Your task to perform on an android device: turn on javascript in the chrome app Image 0: 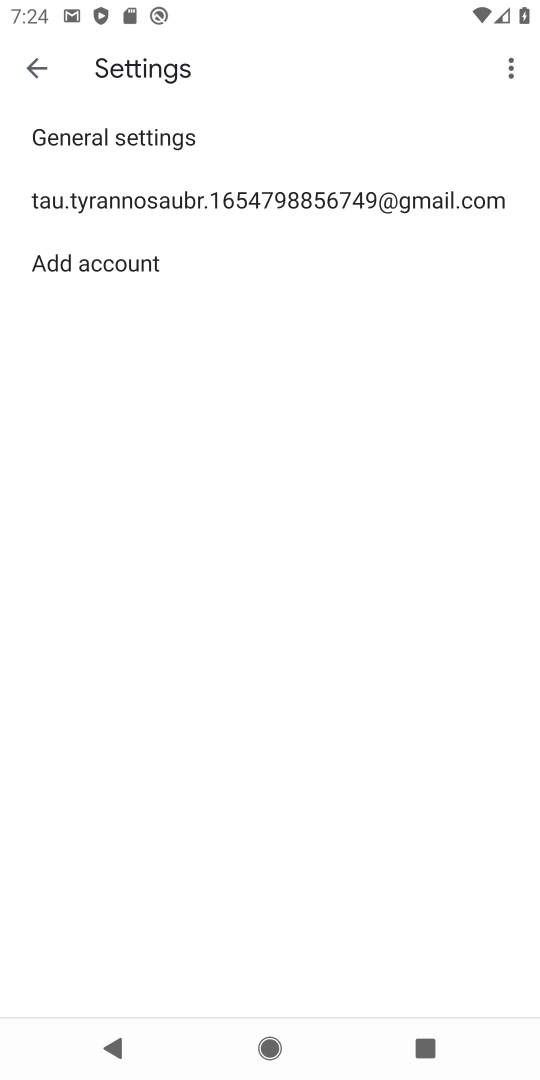
Step 0: press home button
Your task to perform on an android device: turn on javascript in the chrome app Image 1: 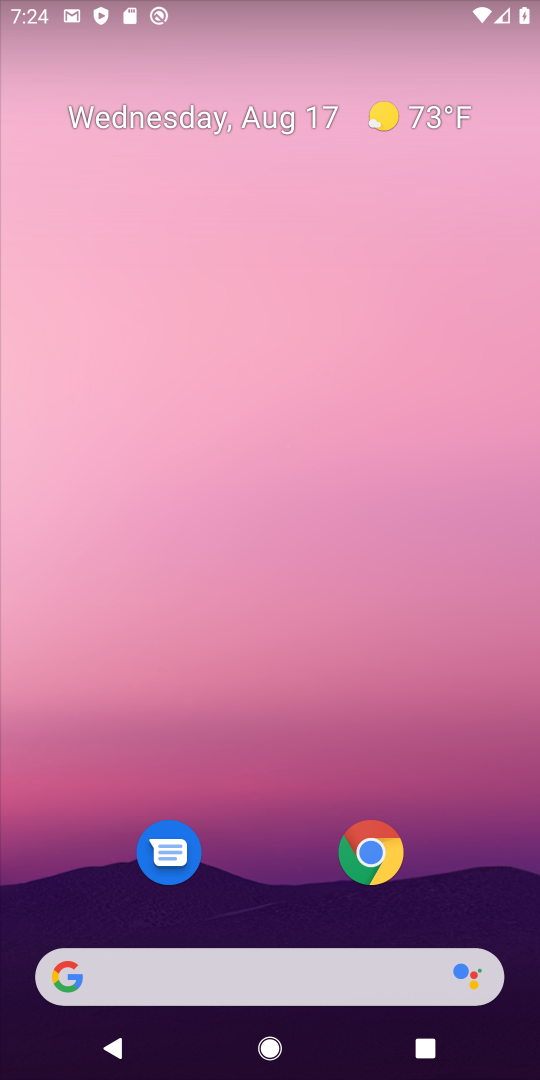
Step 1: press home button
Your task to perform on an android device: turn on javascript in the chrome app Image 2: 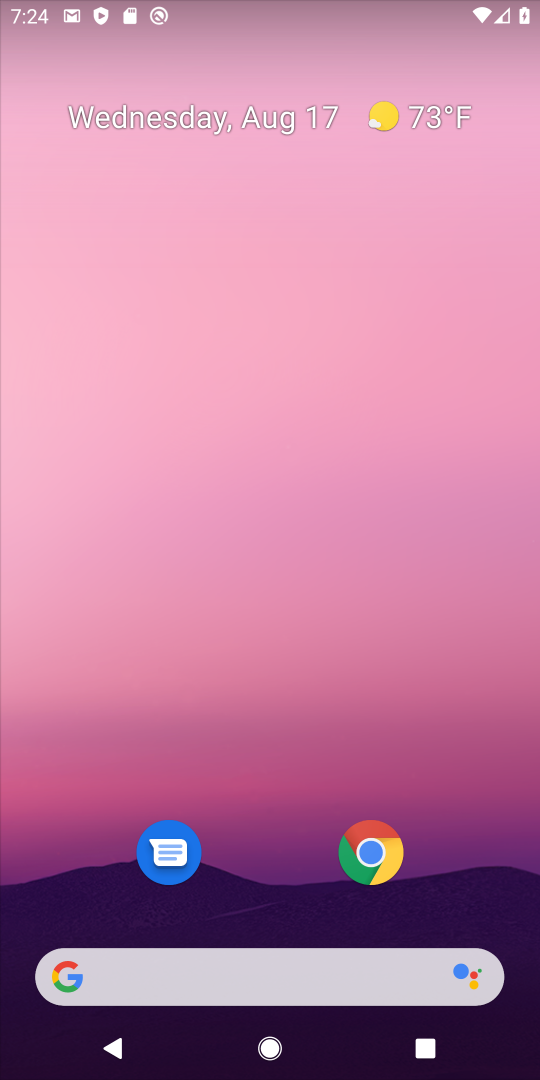
Step 2: click (368, 850)
Your task to perform on an android device: turn on javascript in the chrome app Image 3: 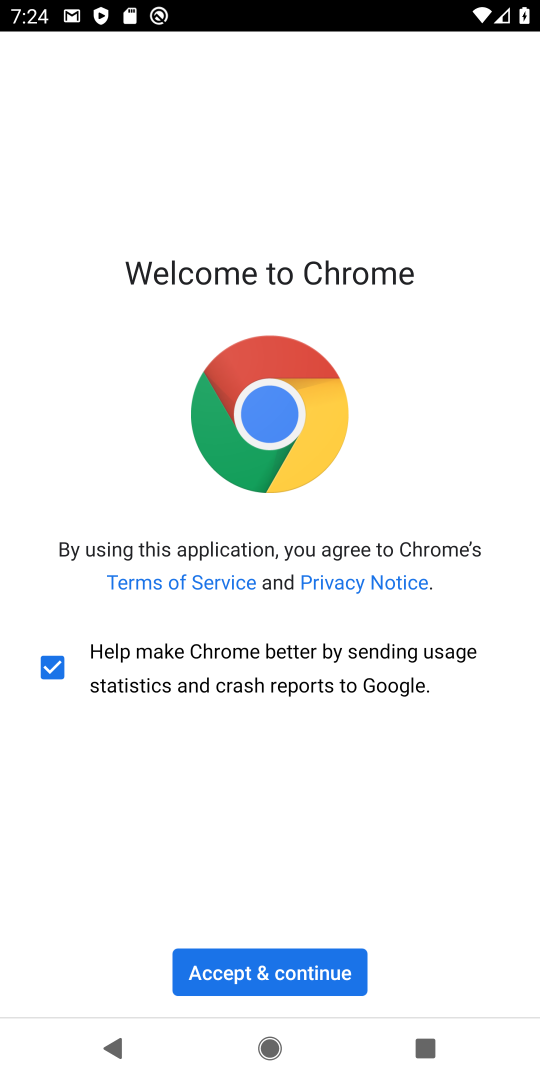
Step 3: click (277, 965)
Your task to perform on an android device: turn on javascript in the chrome app Image 4: 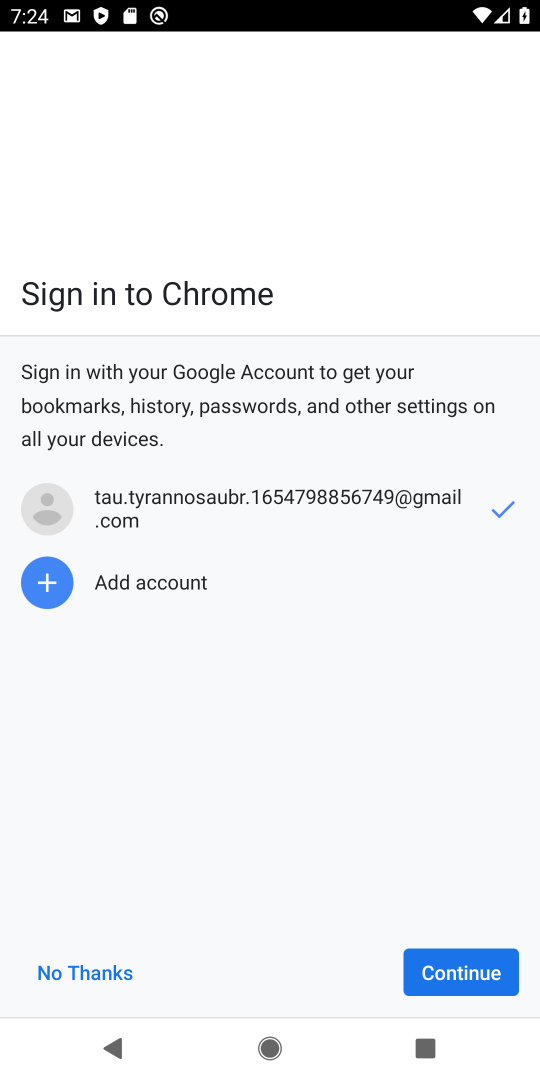
Step 4: click (432, 971)
Your task to perform on an android device: turn on javascript in the chrome app Image 5: 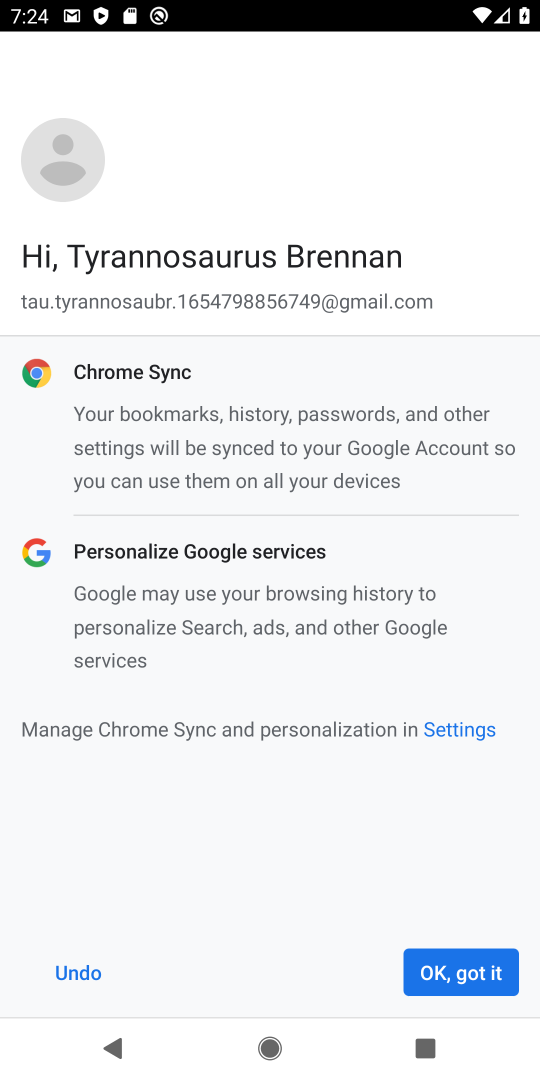
Step 5: click (432, 971)
Your task to perform on an android device: turn on javascript in the chrome app Image 6: 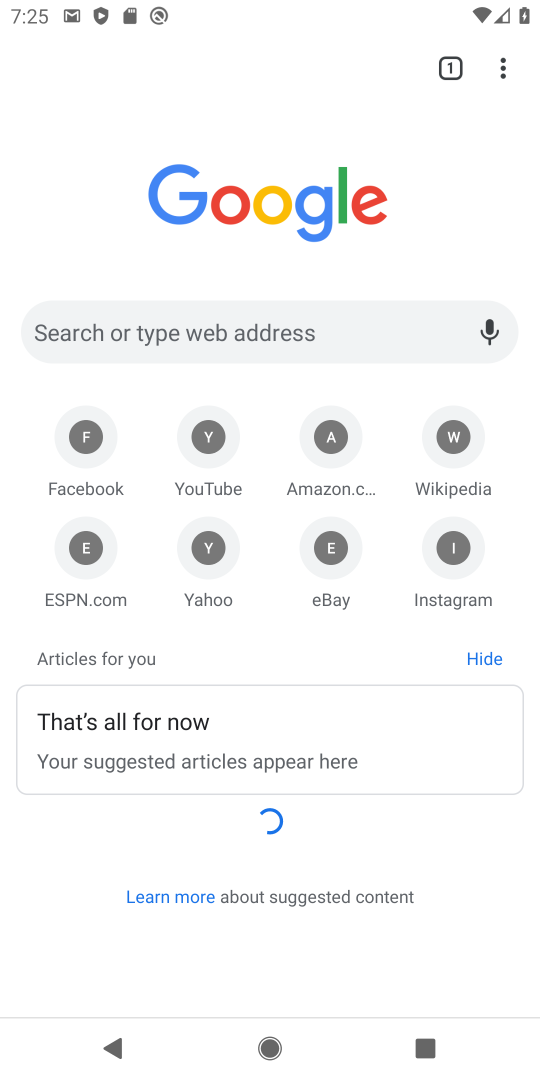
Step 6: click (507, 69)
Your task to perform on an android device: turn on javascript in the chrome app Image 7: 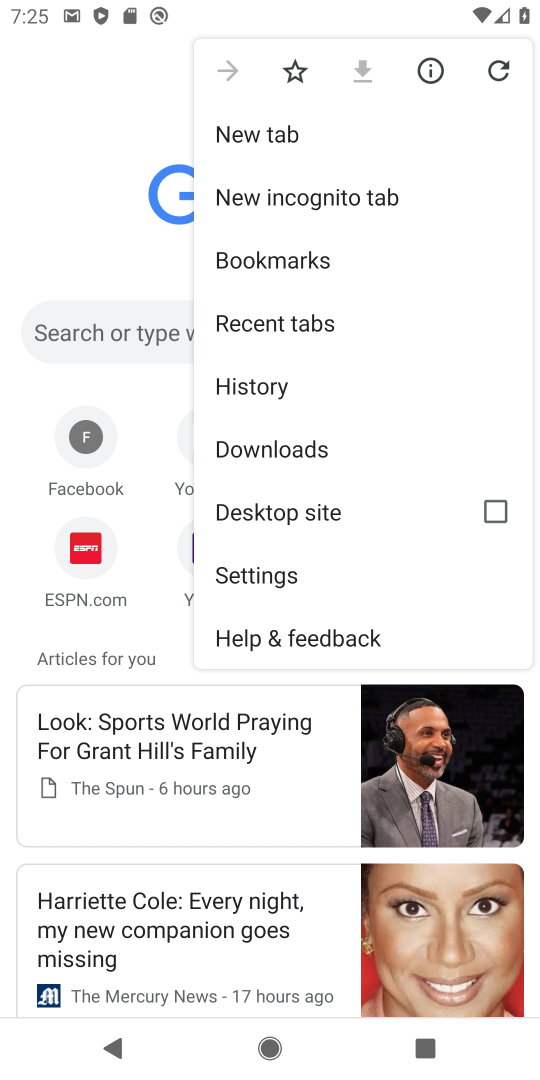
Step 7: click (271, 572)
Your task to perform on an android device: turn on javascript in the chrome app Image 8: 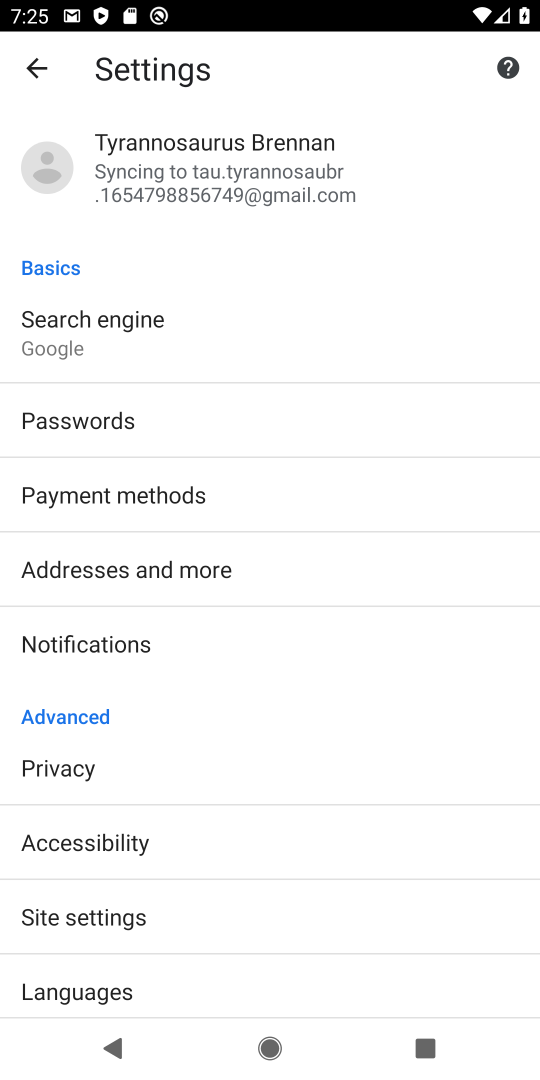
Step 8: click (115, 914)
Your task to perform on an android device: turn on javascript in the chrome app Image 9: 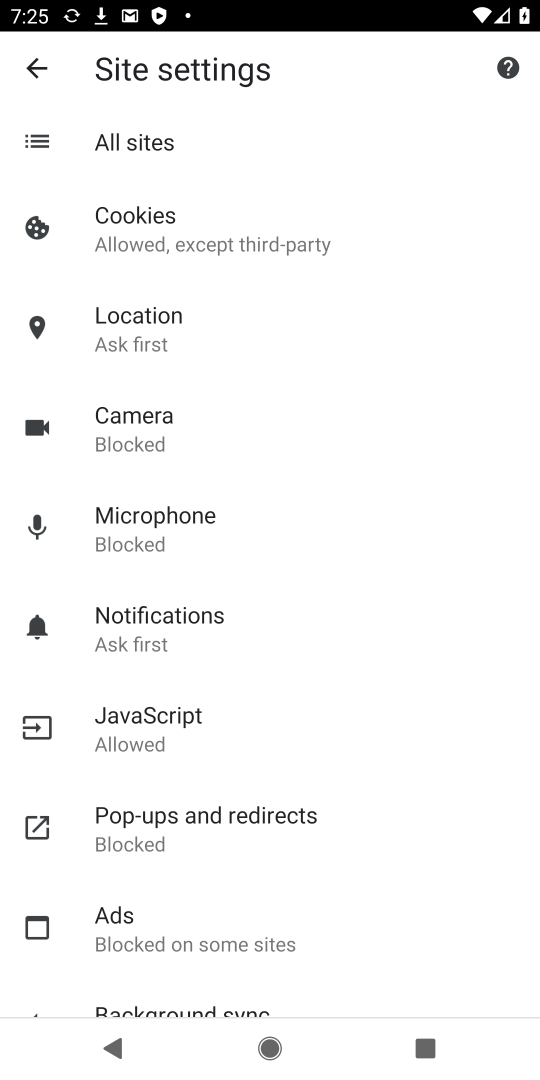
Step 9: click (158, 715)
Your task to perform on an android device: turn on javascript in the chrome app Image 10: 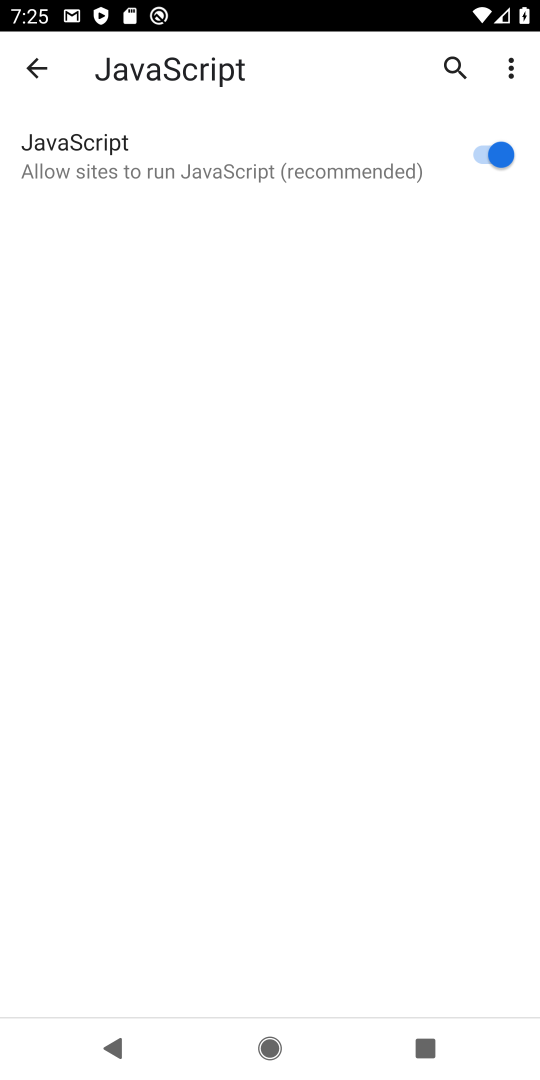
Step 10: task complete